Your task to perform on an android device: change timer sound Image 0: 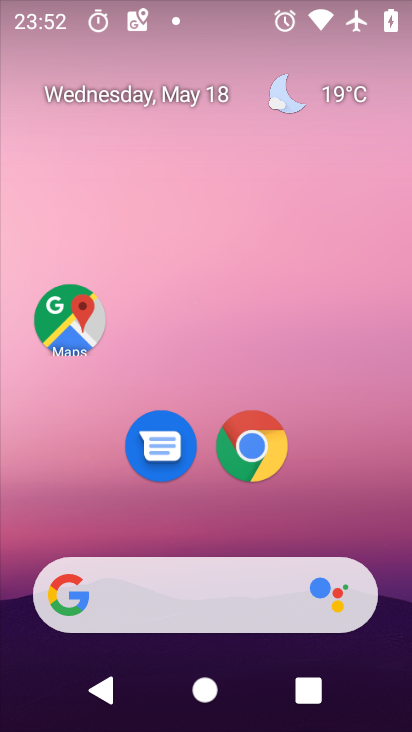
Step 0: press home button
Your task to perform on an android device: change timer sound Image 1: 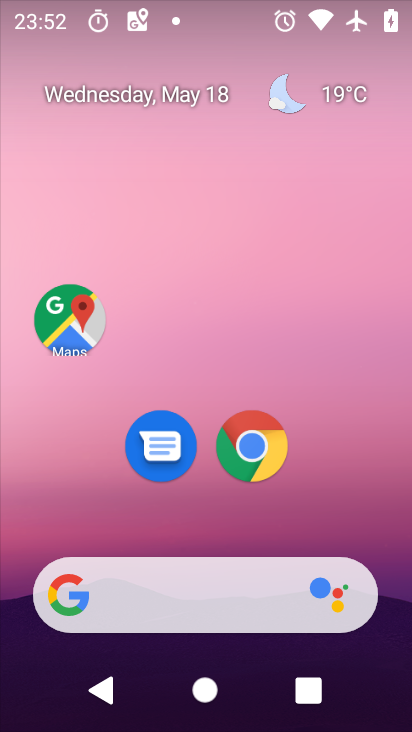
Step 1: drag from (168, 584) to (274, 191)
Your task to perform on an android device: change timer sound Image 2: 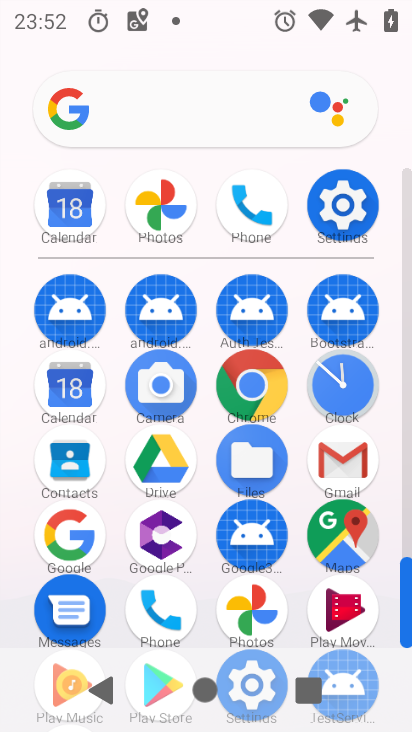
Step 2: click (336, 209)
Your task to perform on an android device: change timer sound Image 3: 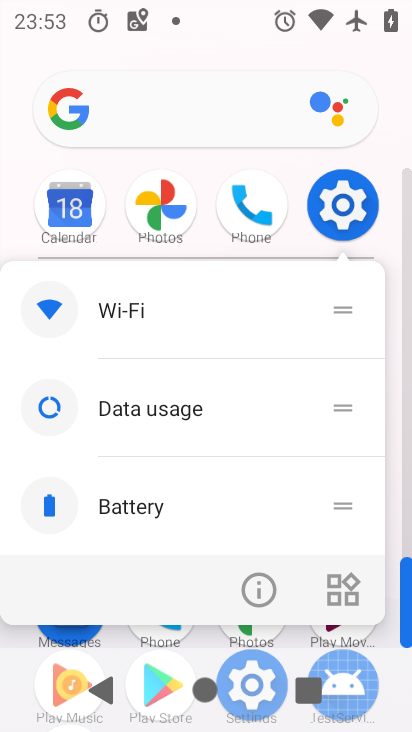
Step 3: press home button
Your task to perform on an android device: change timer sound Image 4: 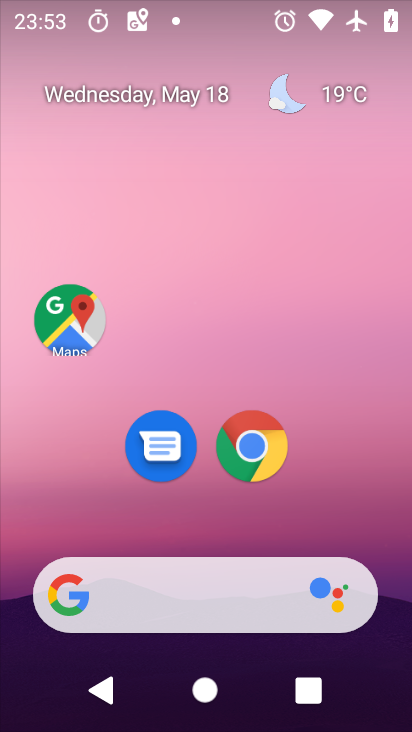
Step 4: drag from (200, 585) to (310, 115)
Your task to perform on an android device: change timer sound Image 5: 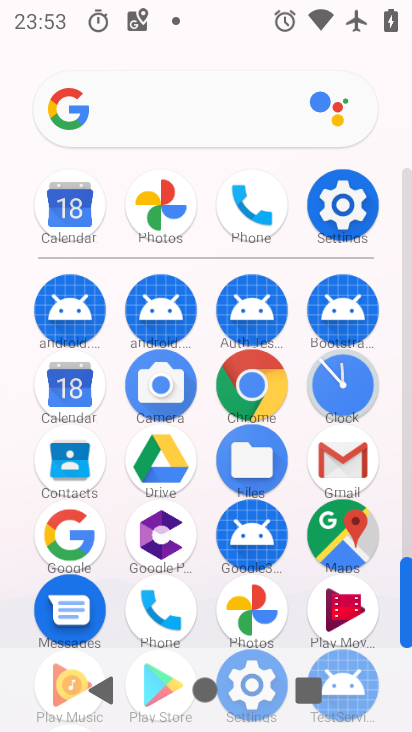
Step 5: click (352, 400)
Your task to perform on an android device: change timer sound Image 6: 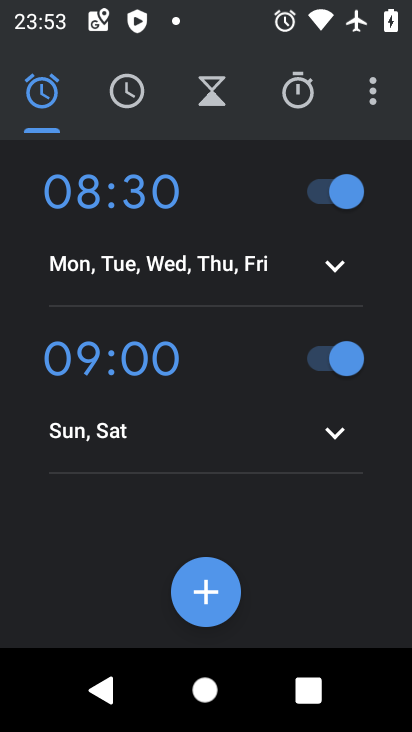
Step 6: click (376, 87)
Your task to perform on an android device: change timer sound Image 7: 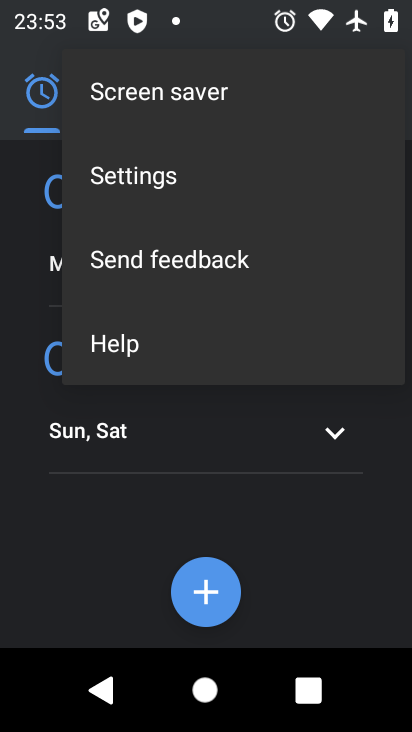
Step 7: click (148, 169)
Your task to perform on an android device: change timer sound Image 8: 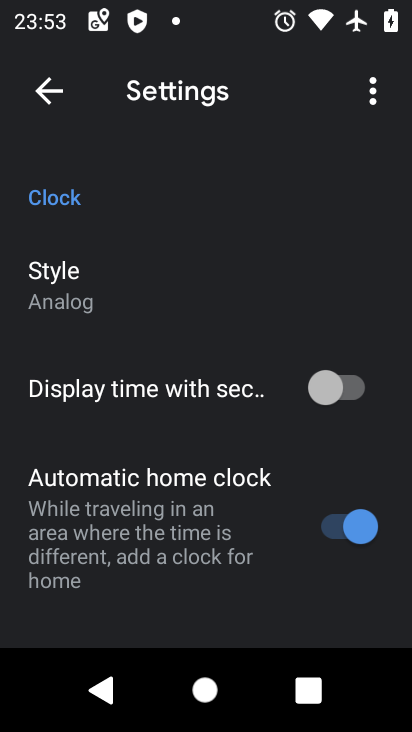
Step 8: drag from (175, 574) to (318, 51)
Your task to perform on an android device: change timer sound Image 9: 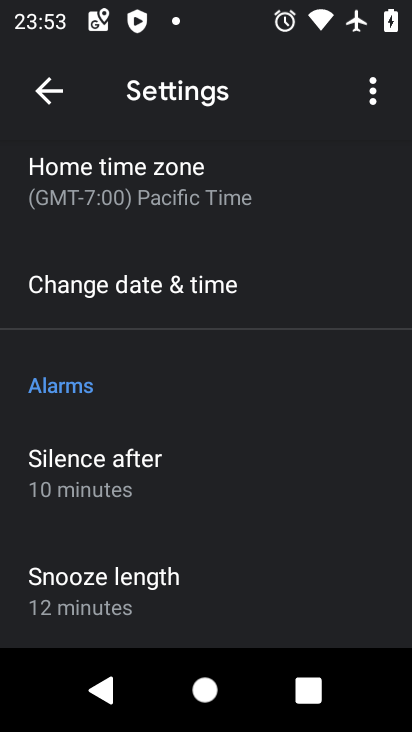
Step 9: drag from (197, 560) to (330, 195)
Your task to perform on an android device: change timer sound Image 10: 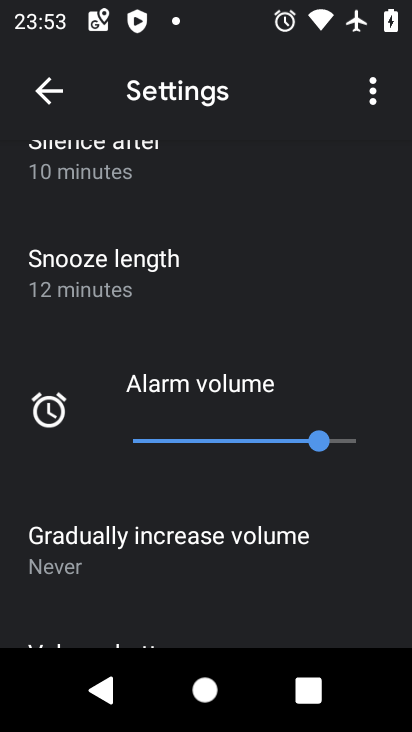
Step 10: drag from (210, 576) to (379, 109)
Your task to perform on an android device: change timer sound Image 11: 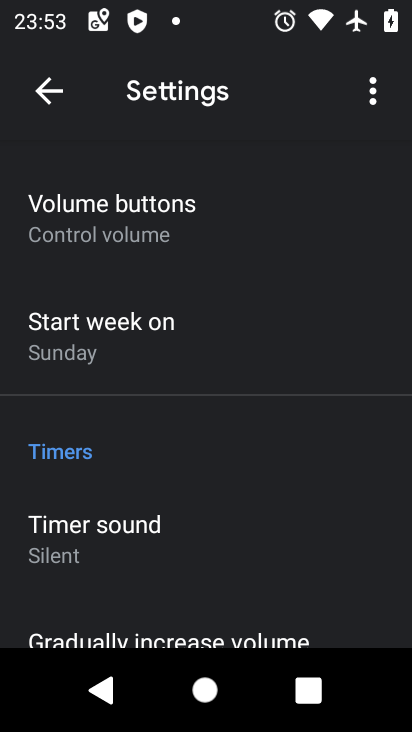
Step 11: click (142, 534)
Your task to perform on an android device: change timer sound Image 12: 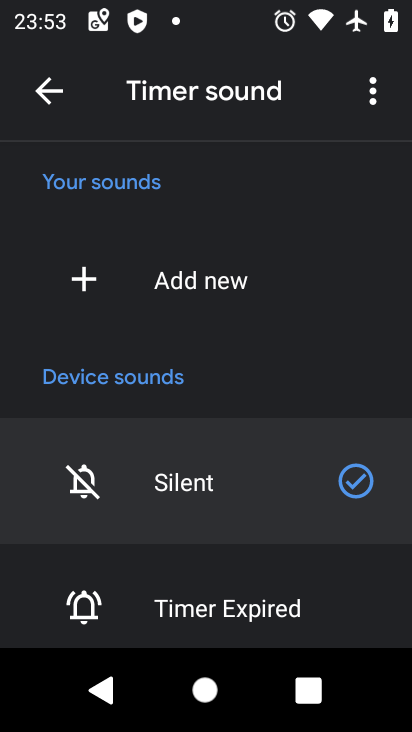
Step 12: drag from (258, 555) to (375, 226)
Your task to perform on an android device: change timer sound Image 13: 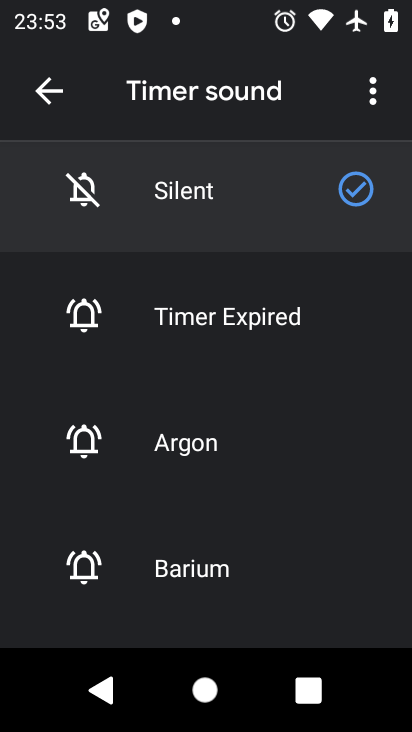
Step 13: click (215, 326)
Your task to perform on an android device: change timer sound Image 14: 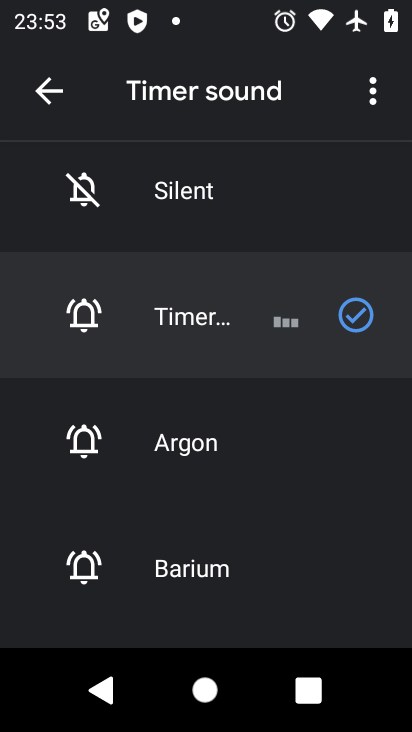
Step 14: task complete